Your task to perform on an android device: turn vacation reply on in the gmail app Image 0: 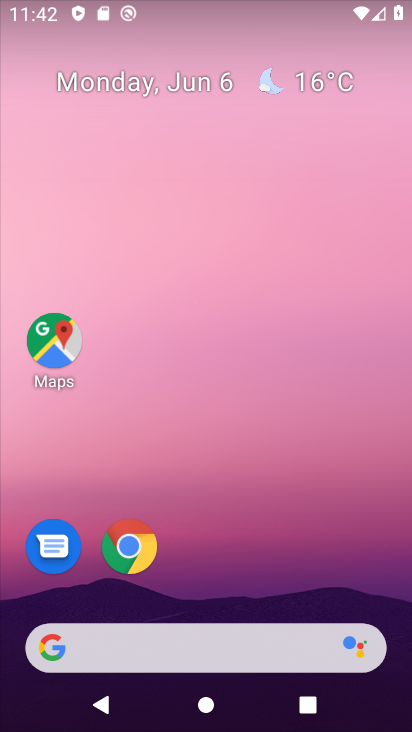
Step 0: click (192, 147)
Your task to perform on an android device: turn vacation reply on in the gmail app Image 1: 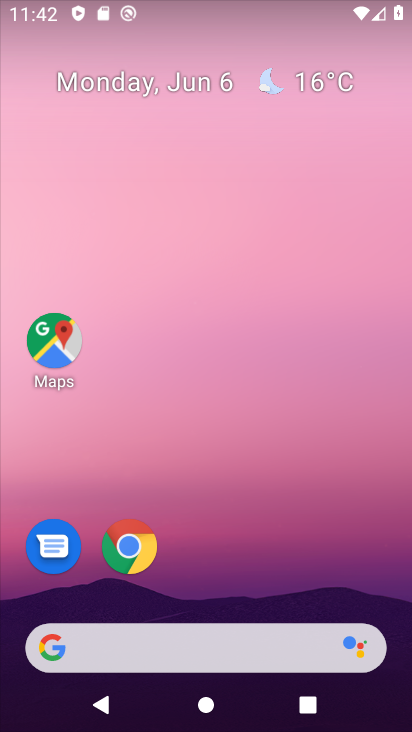
Step 1: drag from (207, 622) to (122, 120)
Your task to perform on an android device: turn vacation reply on in the gmail app Image 2: 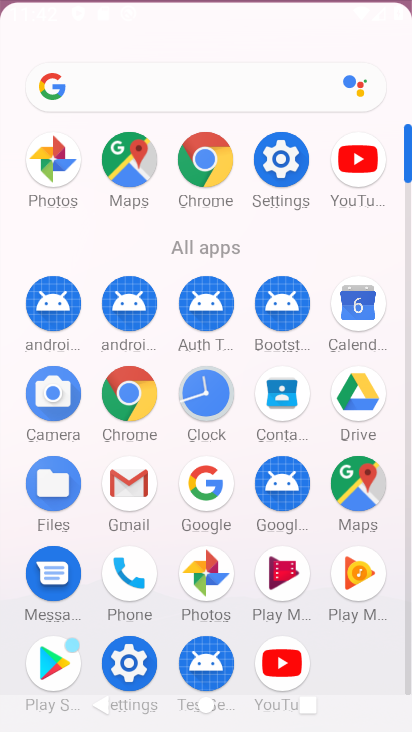
Step 2: drag from (263, 580) to (209, 190)
Your task to perform on an android device: turn vacation reply on in the gmail app Image 3: 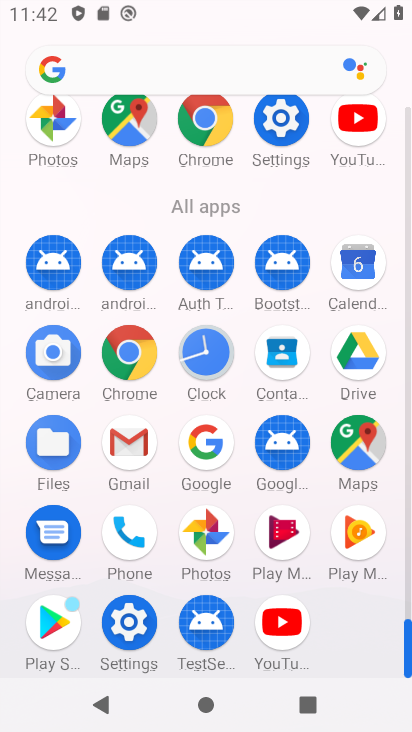
Step 3: click (127, 433)
Your task to perform on an android device: turn vacation reply on in the gmail app Image 4: 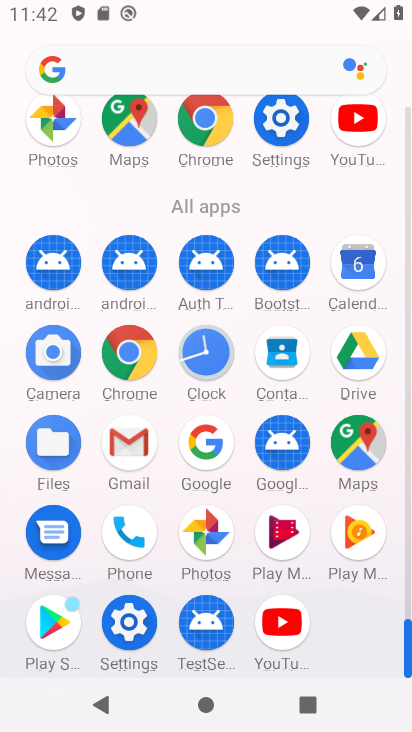
Step 4: click (136, 432)
Your task to perform on an android device: turn vacation reply on in the gmail app Image 5: 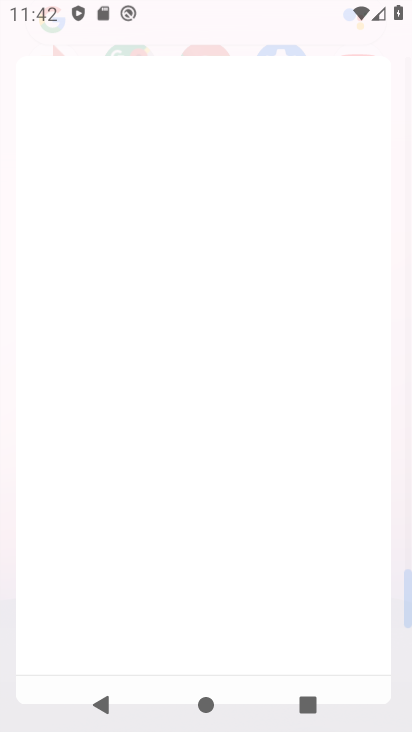
Step 5: click (136, 432)
Your task to perform on an android device: turn vacation reply on in the gmail app Image 6: 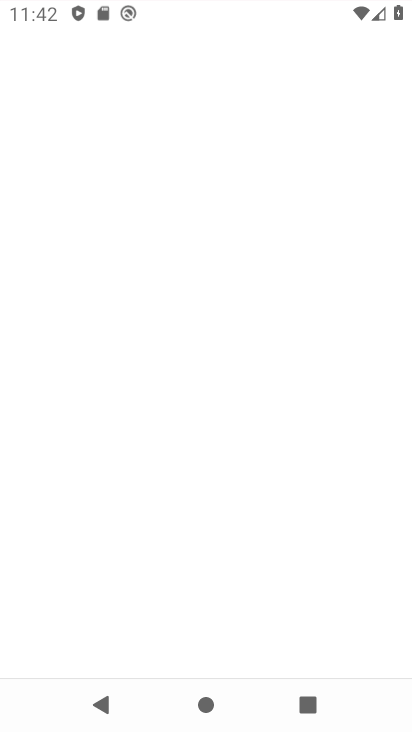
Step 6: click (136, 432)
Your task to perform on an android device: turn vacation reply on in the gmail app Image 7: 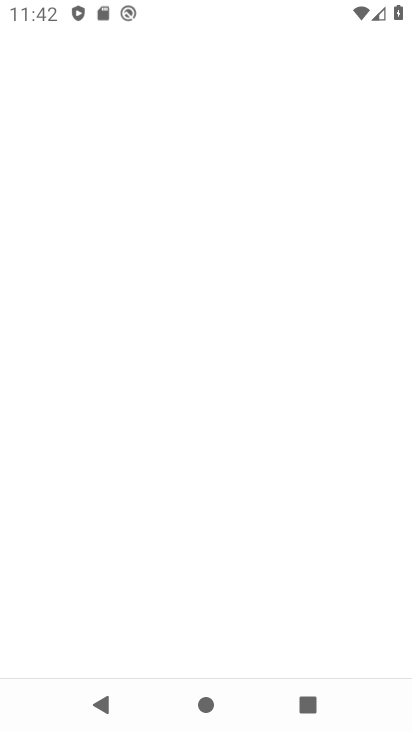
Step 7: click (136, 432)
Your task to perform on an android device: turn vacation reply on in the gmail app Image 8: 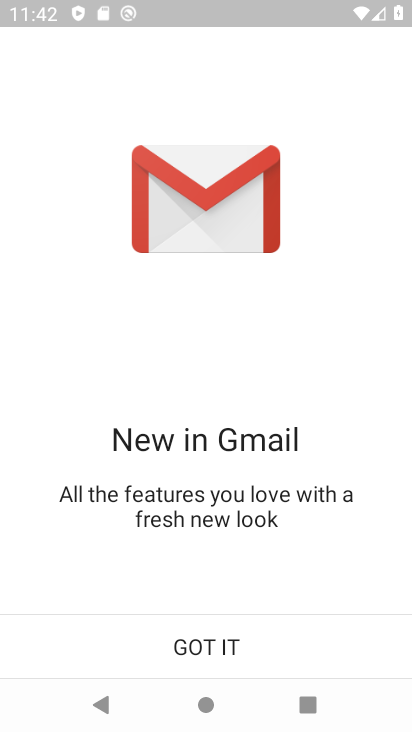
Step 8: click (198, 638)
Your task to perform on an android device: turn vacation reply on in the gmail app Image 9: 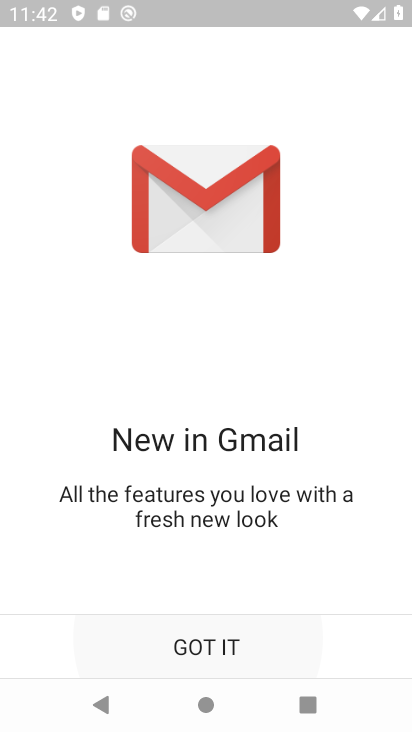
Step 9: click (199, 637)
Your task to perform on an android device: turn vacation reply on in the gmail app Image 10: 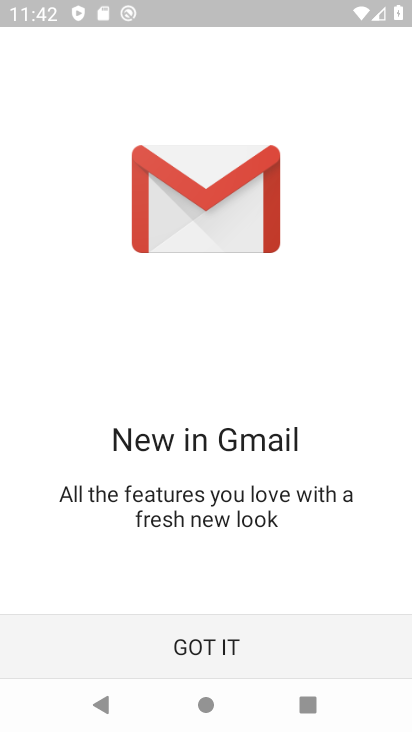
Step 10: click (199, 637)
Your task to perform on an android device: turn vacation reply on in the gmail app Image 11: 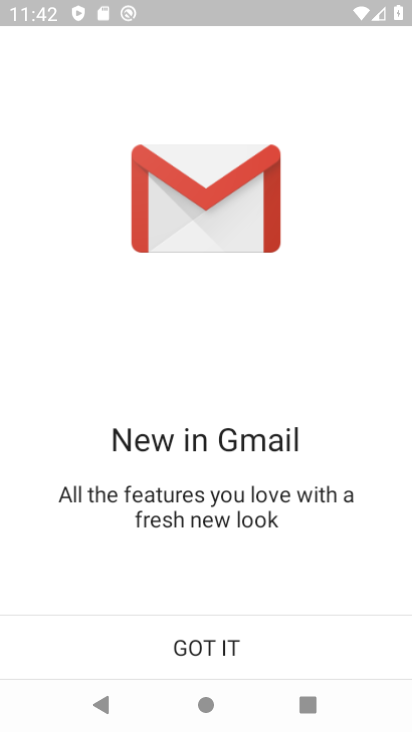
Step 11: click (199, 637)
Your task to perform on an android device: turn vacation reply on in the gmail app Image 12: 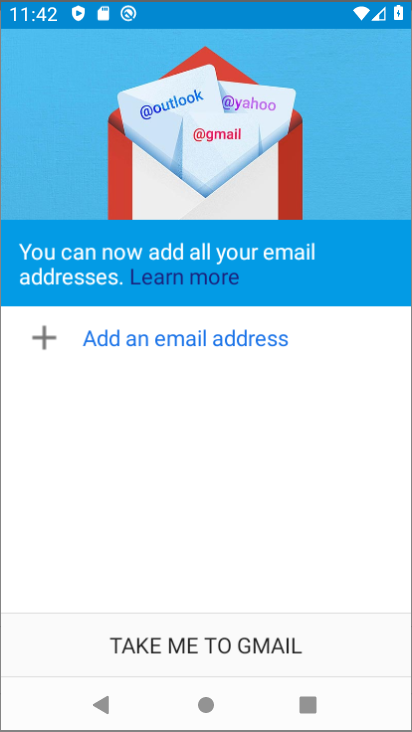
Step 12: click (199, 637)
Your task to perform on an android device: turn vacation reply on in the gmail app Image 13: 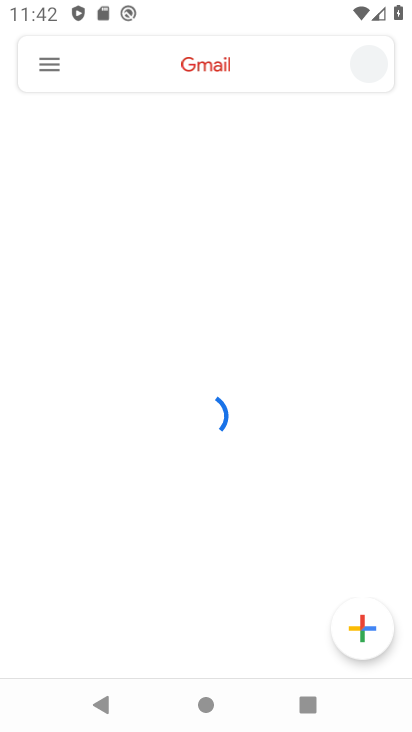
Step 13: click (43, 69)
Your task to perform on an android device: turn vacation reply on in the gmail app Image 14: 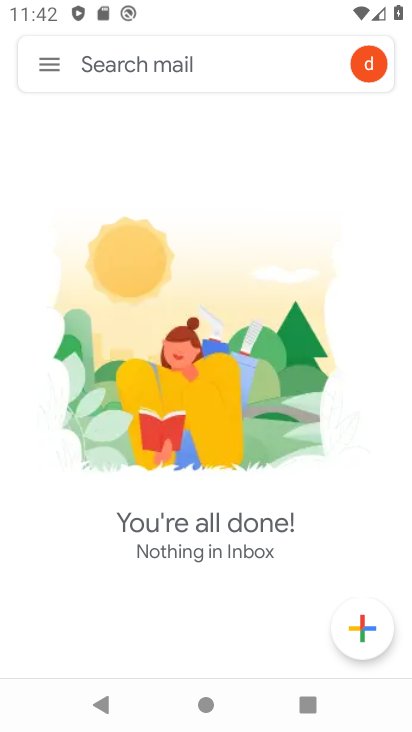
Step 14: click (44, 59)
Your task to perform on an android device: turn vacation reply on in the gmail app Image 15: 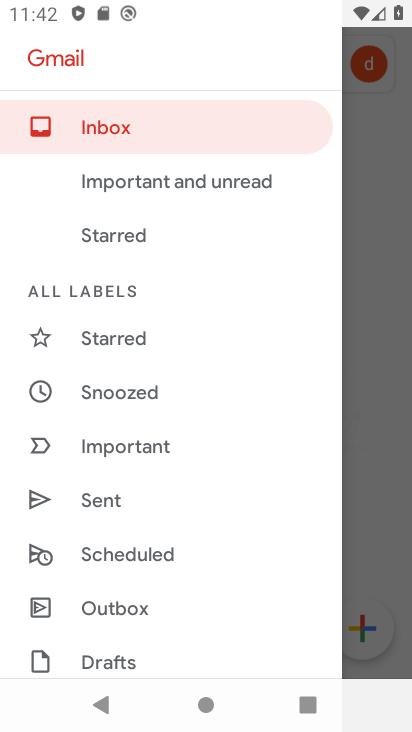
Step 15: drag from (142, 288) to (114, 221)
Your task to perform on an android device: turn vacation reply on in the gmail app Image 16: 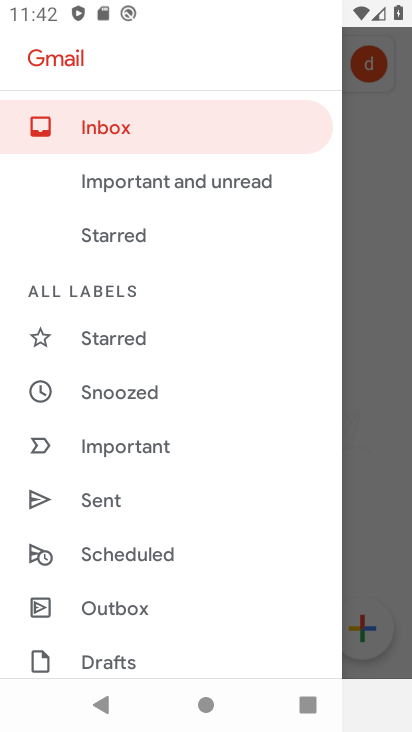
Step 16: drag from (174, 465) to (123, 161)
Your task to perform on an android device: turn vacation reply on in the gmail app Image 17: 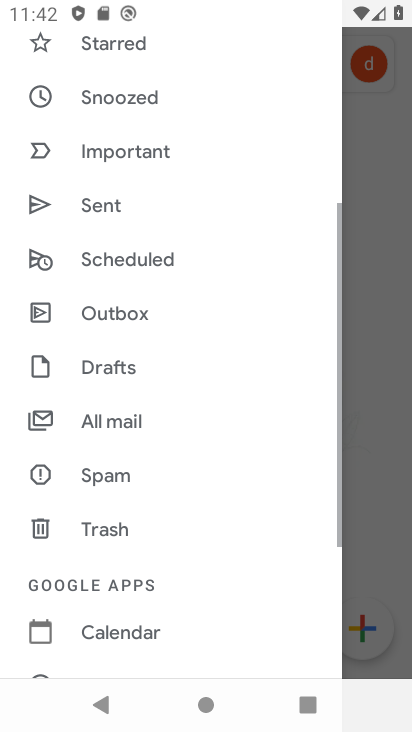
Step 17: drag from (231, 510) to (139, 127)
Your task to perform on an android device: turn vacation reply on in the gmail app Image 18: 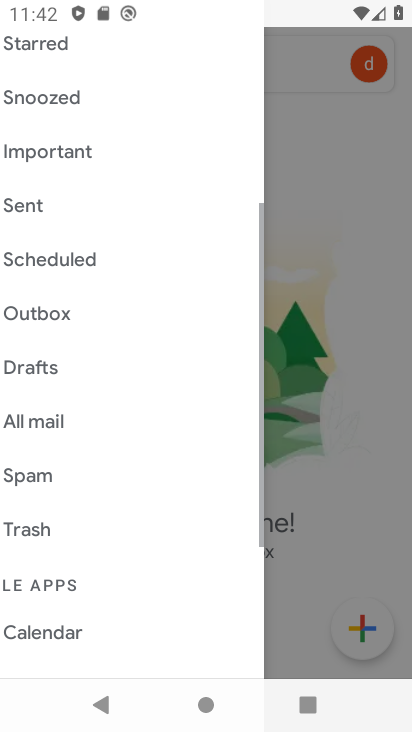
Step 18: drag from (171, 430) to (134, 158)
Your task to perform on an android device: turn vacation reply on in the gmail app Image 19: 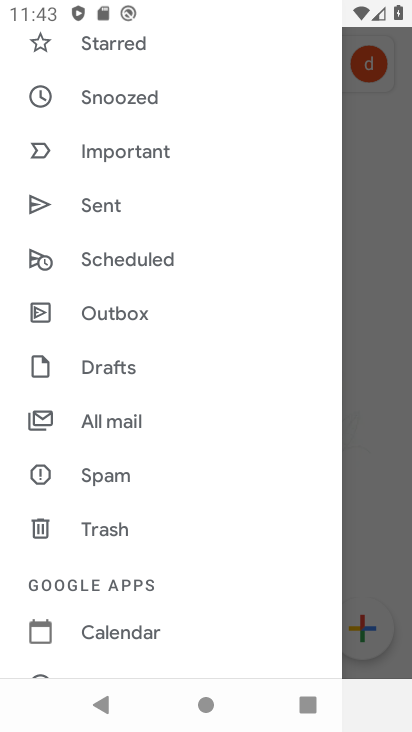
Step 19: drag from (167, 433) to (83, 131)
Your task to perform on an android device: turn vacation reply on in the gmail app Image 20: 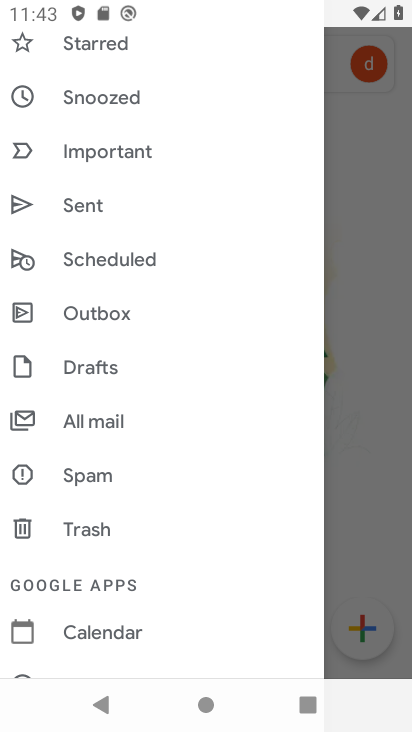
Step 20: drag from (187, 509) to (200, 130)
Your task to perform on an android device: turn vacation reply on in the gmail app Image 21: 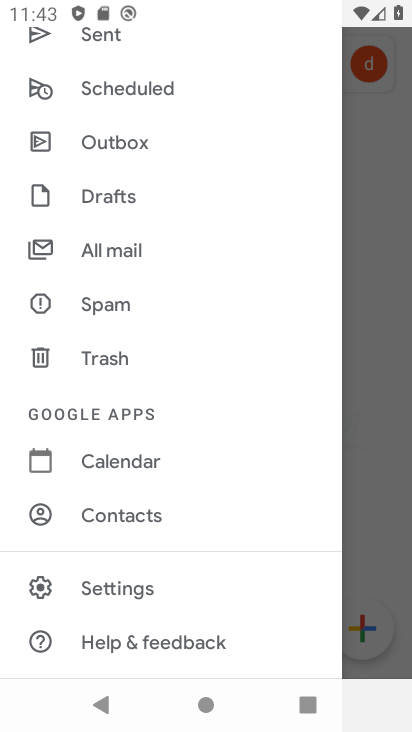
Step 21: click (125, 579)
Your task to perform on an android device: turn vacation reply on in the gmail app Image 22: 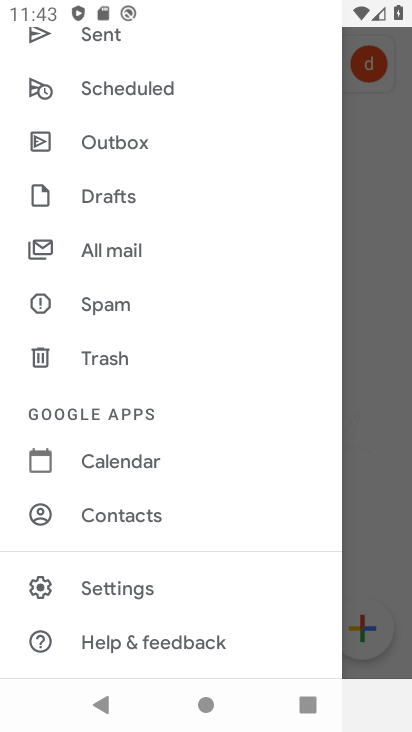
Step 22: click (125, 583)
Your task to perform on an android device: turn vacation reply on in the gmail app Image 23: 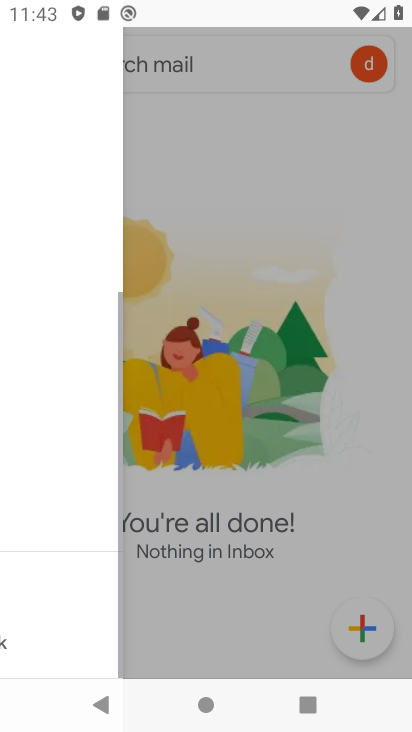
Step 23: click (123, 582)
Your task to perform on an android device: turn vacation reply on in the gmail app Image 24: 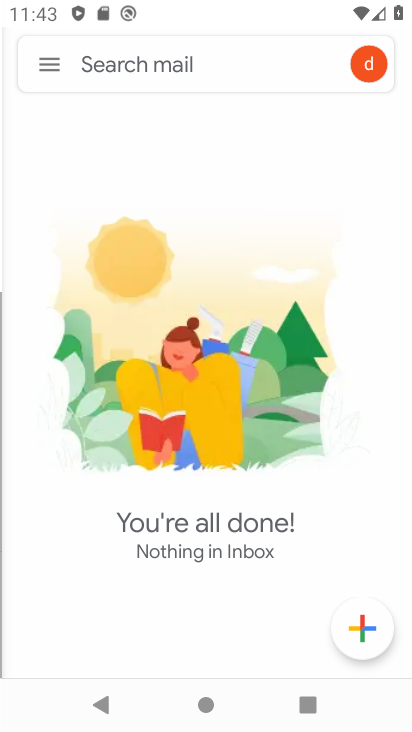
Step 24: click (118, 577)
Your task to perform on an android device: turn vacation reply on in the gmail app Image 25: 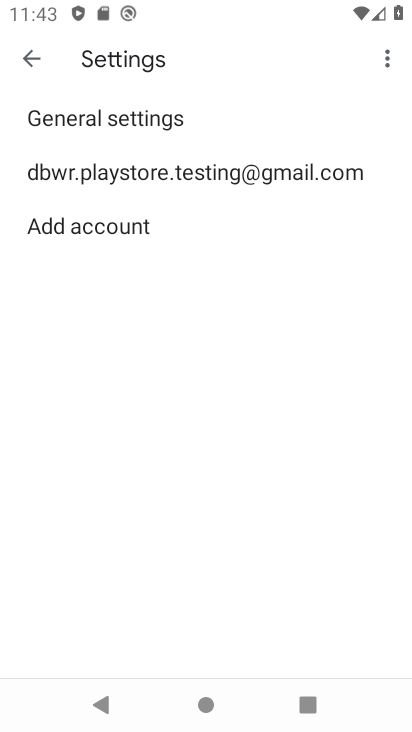
Step 25: click (174, 173)
Your task to perform on an android device: turn vacation reply on in the gmail app Image 26: 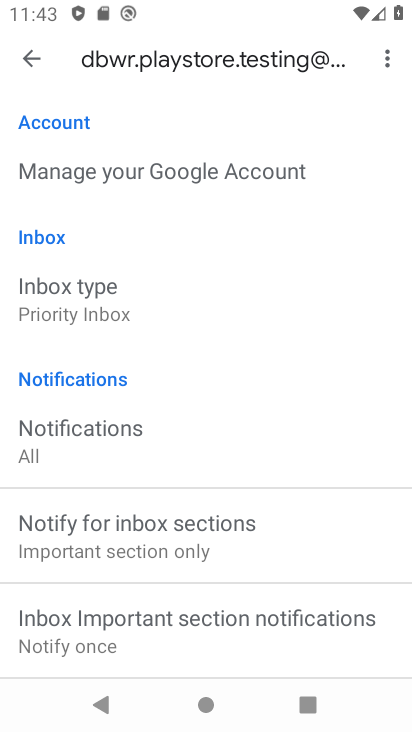
Step 26: drag from (116, 570) to (43, 276)
Your task to perform on an android device: turn vacation reply on in the gmail app Image 27: 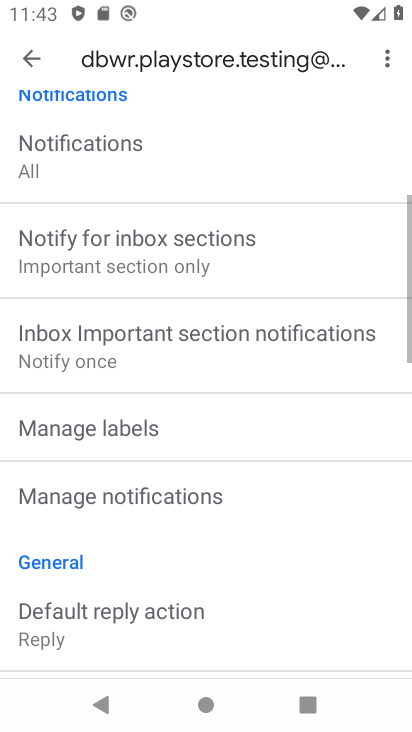
Step 27: drag from (160, 613) to (132, 371)
Your task to perform on an android device: turn vacation reply on in the gmail app Image 28: 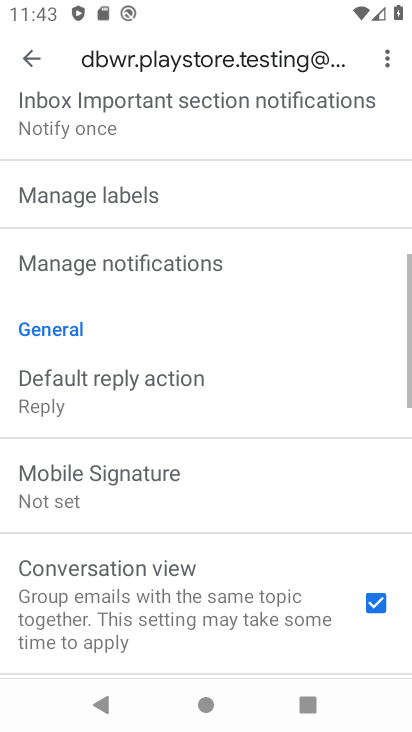
Step 28: drag from (192, 562) to (161, 319)
Your task to perform on an android device: turn vacation reply on in the gmail app Image 29: 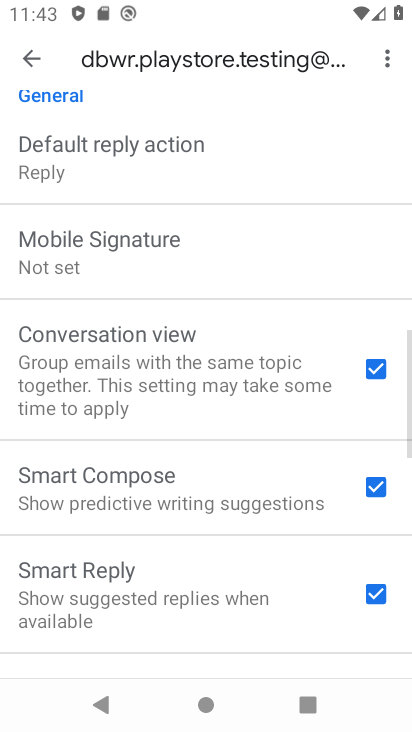
Step 29: drag from (173, 432) to (189, 375)
Your task to perform on an android device: turn vacation reply on in the gmail app Image 30: 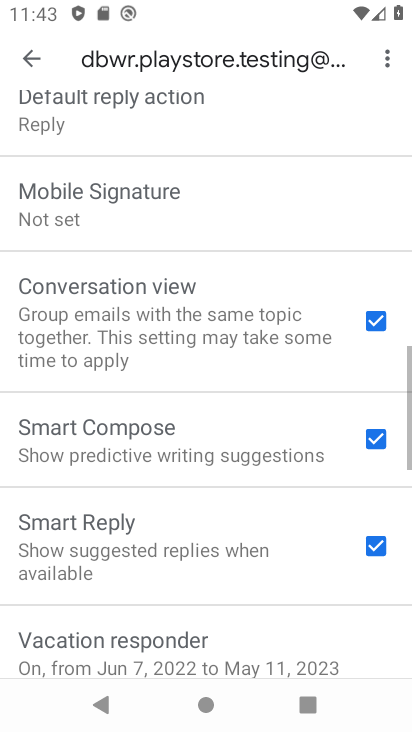
Step 30: drag from (241, 422) to (236, 346)
Your task to perform on an android device: turn vacation reply on in the gmail app Image 31: 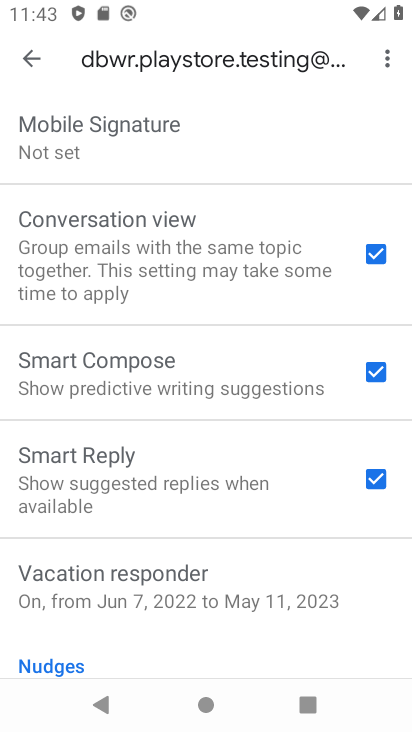
Step 31: drag from (228, 470) to (202, 297)
Your task to perform on an android device: turn vacation reply on in the gmail app Image 32: 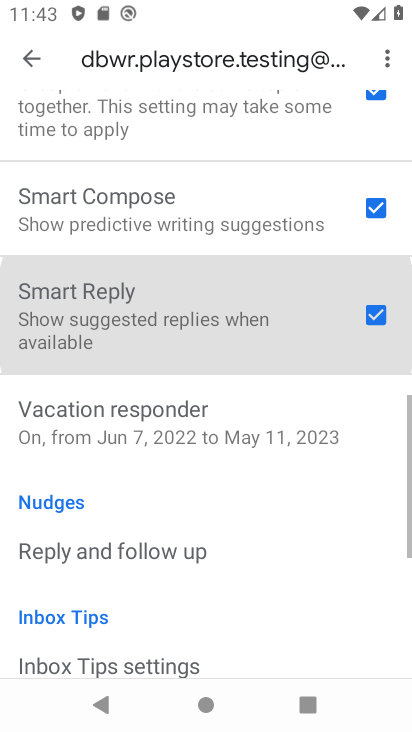
Step 32: drag from (187, 386) to (153, 220)
Your task to perform on an android device: turn vacation reply on in the gmail app Image 33: 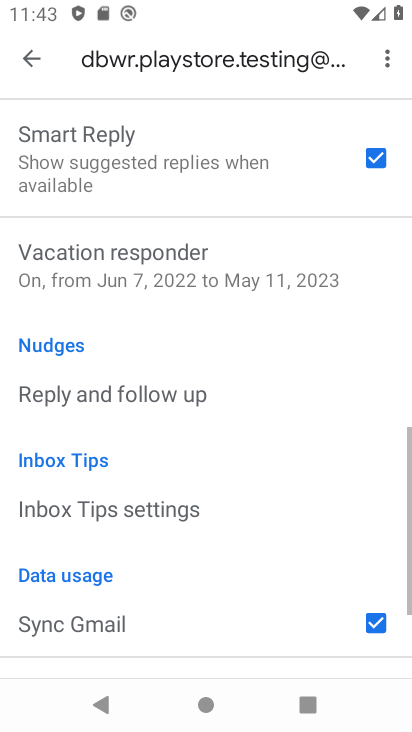
Step 33: drag from (243, 389) to (229, 275)
Your task to perform on an android device: turn vacation reply on in the gmail app Image 34: 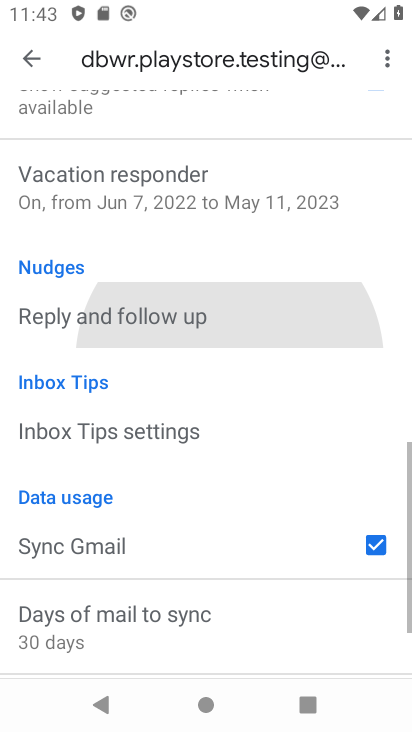
Step 34: drag from (245, 492) to (221, 337)
Your task to perform on an android device: turn vacation reply on in the gmail app Image 35: 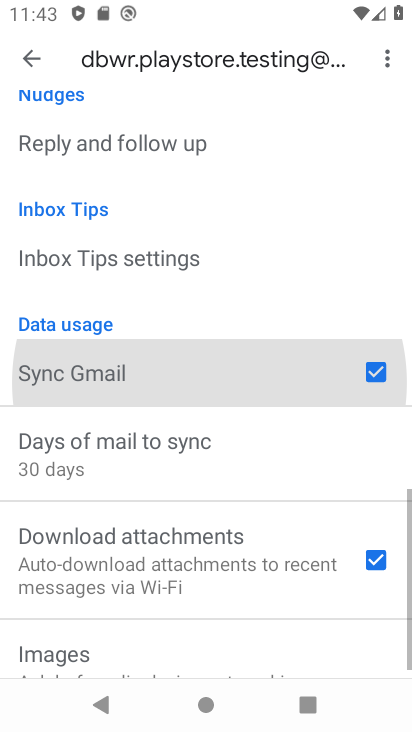
Step 35: drag from (208, 476) to (193, 375)
Your task to perform on an android device: turn vacation reply on in the gmail app Image 36: 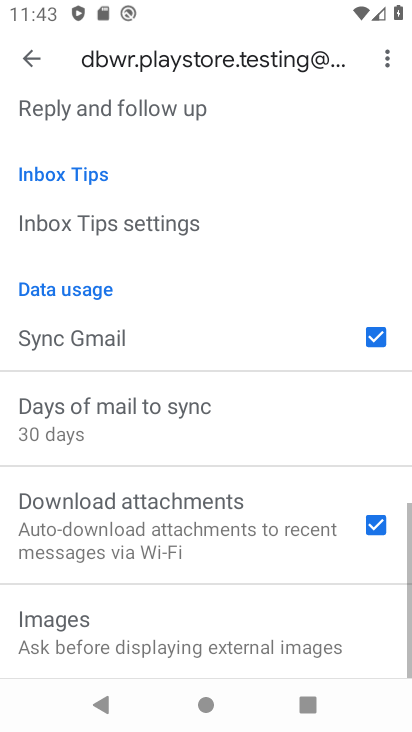
Step 36: drag from (205, 565) to (185, 313)
Your task to perform on an android device: turn vacation reply on in the gmail app Image 37: 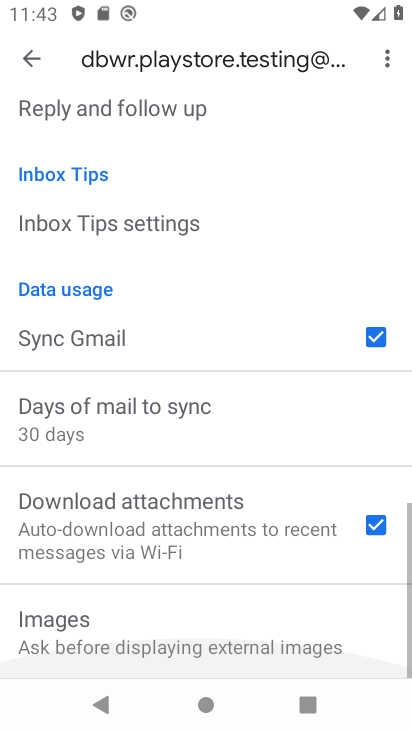
Step 37: drag from (211, 390) to (213, 304)
Your task to perform on an android device: turn vacation reply on in the gmail app Image 38: 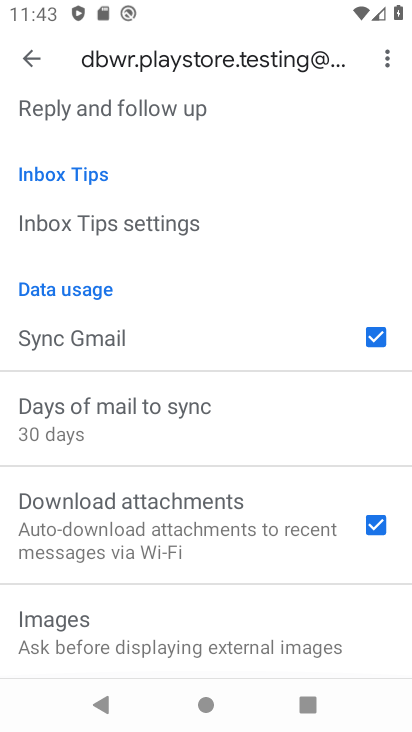
Step 38: drag from (238, 382) to (235, 255)
Your task to perform on an android device: turn vacation reply on in the gmail app Image 39: 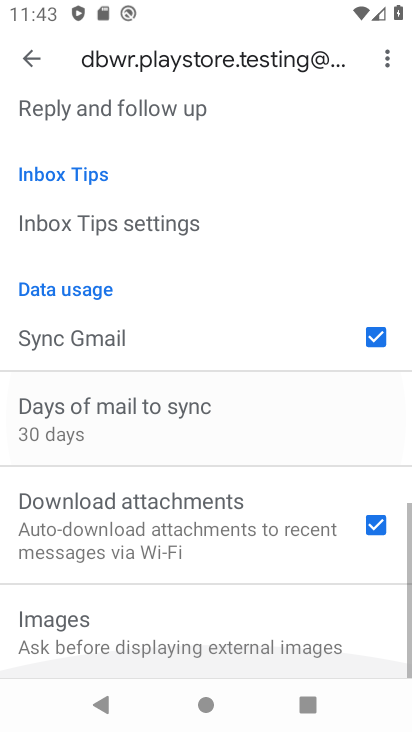
Step 39: drag from (264, 429) to (250, 282)
Your task to perform on an android device: turn vacation reply on in the gmail app Image 40: 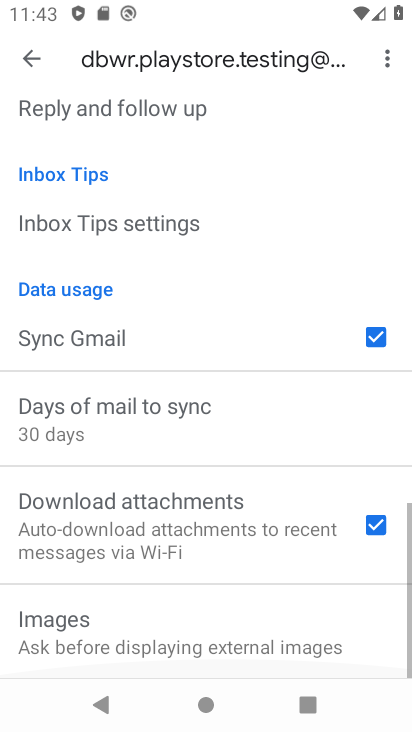
Step 40: drag from (247, 482) to (227, 324)
Your task to perform on an android device: turn vacation reply on in the gmail app Image 41: 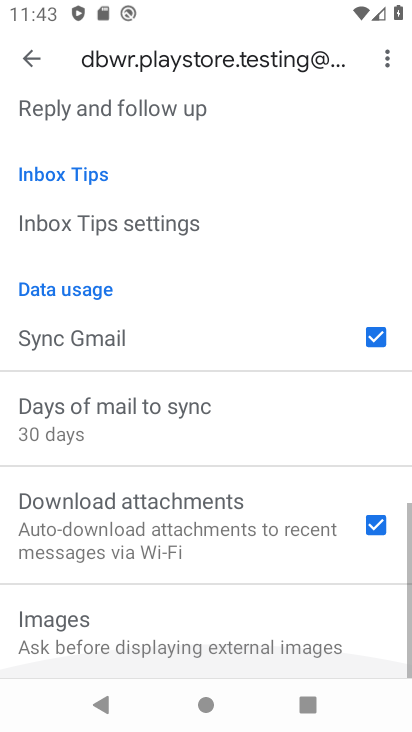
Step 41: drag from (212, 230) to (244, 543)
Your task to perform on an android device: turn vacation reply on in the gmail app Image 42: 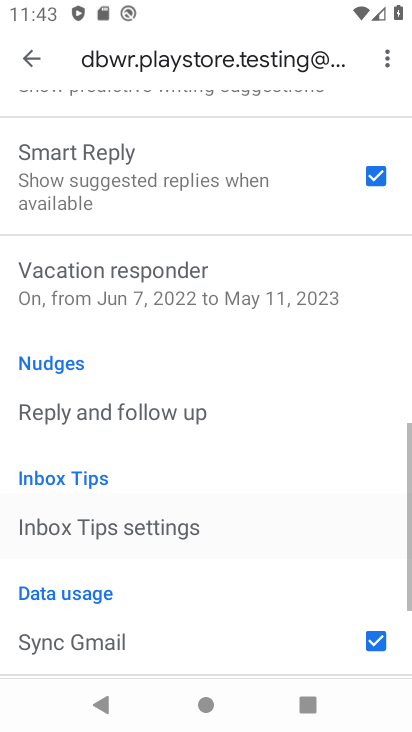
Step 42: drag from (199, 264) to (226, 475)
Your task to perform on an android device: turn vacation reply on in the gmail app Image 43: 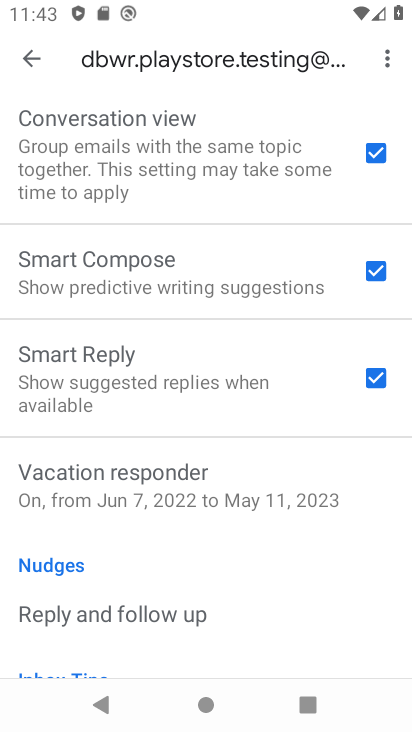
Step 43: click (190, 488)
Your task to perform on an android device: turn vacation reply on in the gmail app Image 44: 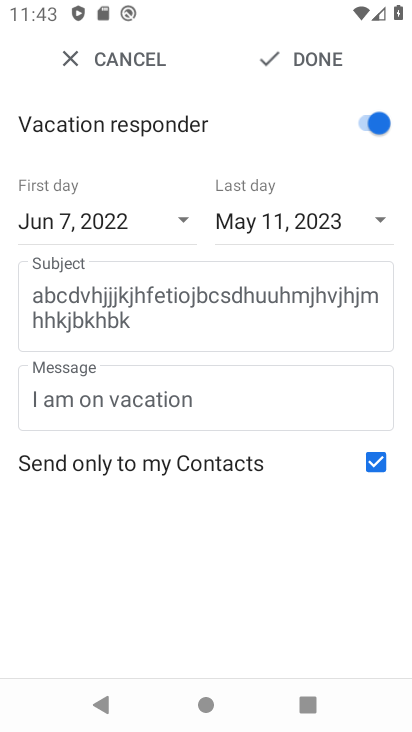
Step 44: task complete